Your task to perform on an android device: turn on the 24-hour format for clock Image 0: 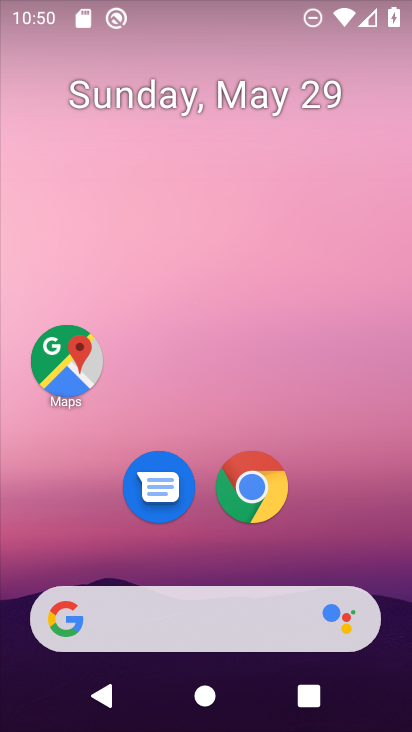
Step 0: drag from (204, 552) to (191, 92)
Your task to perform on an android device: turn on the 24-hour format for clock Image 1: 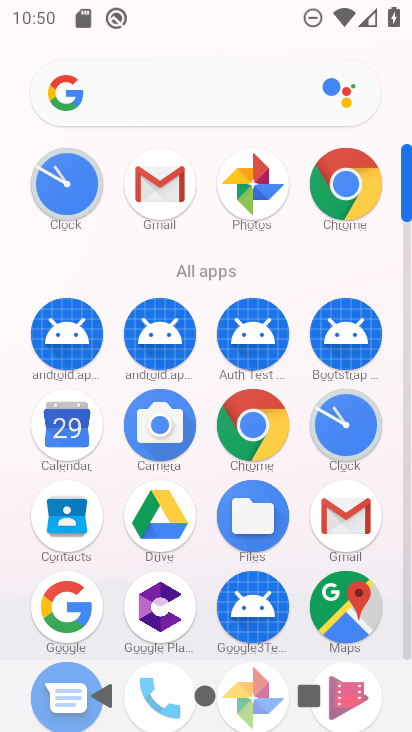
Step 1: click (342, 421)
Your task to perform on an android device: turn on the 24-hour format for clock Image 2: 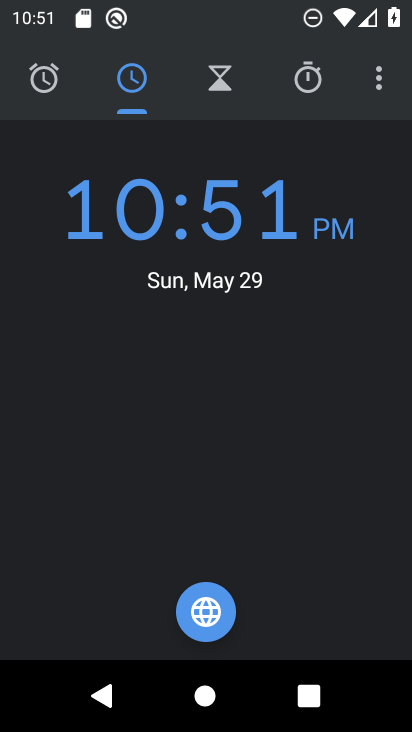
Step 2: click (382, 77)
Your task to perform on an android device: turn on the 24-hour format for clock Image 3: 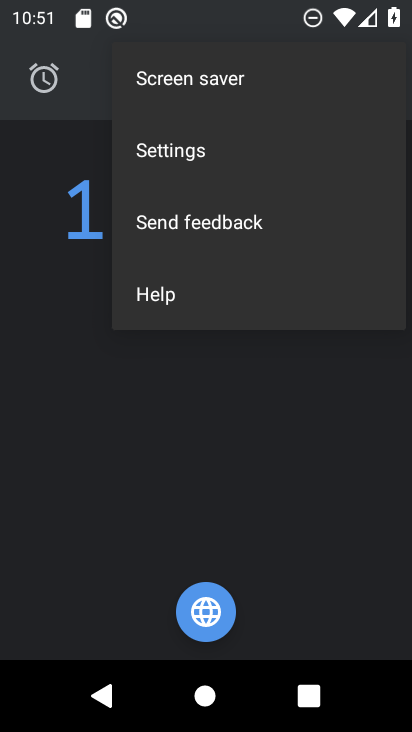
Step 3: click (229, 148)
Your task to perform on an android device: turn on the 24-hour format for clock Image 4: 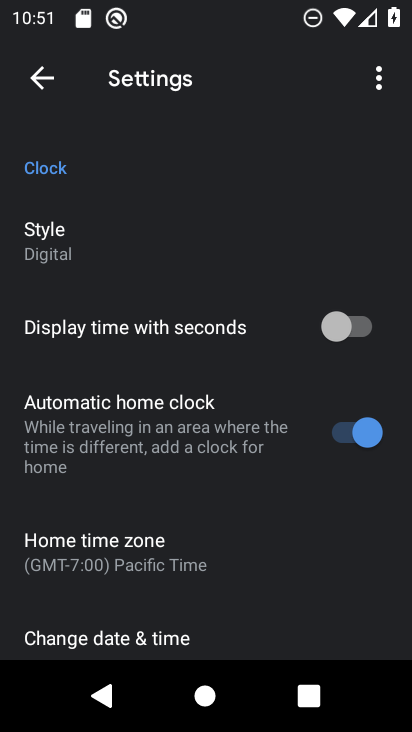
Step 4: click (203, 632)
Your task to perform on an android device: turn on the 24-hour format for clock Image 5: 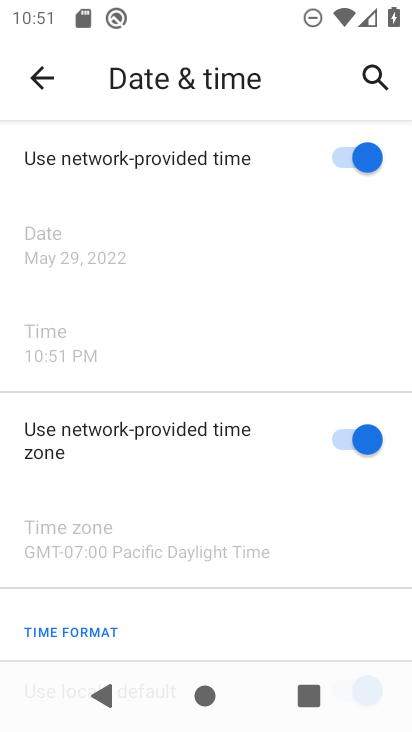
Step 5: drag from (195, 611) to (221, 122)
Your task to perform on an android device: turn on the 24-hour format for clock Image 6: 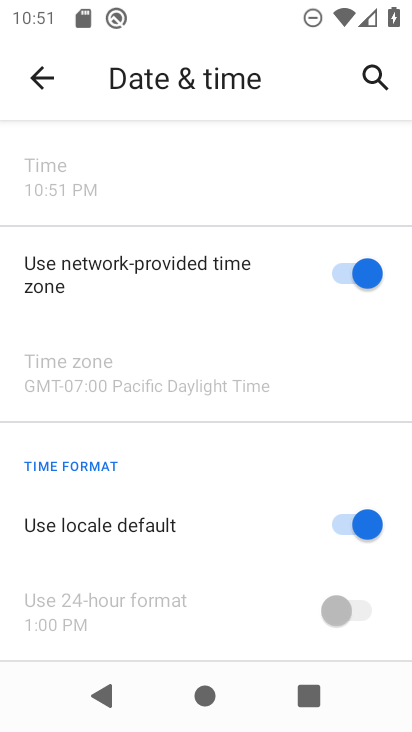
Step 6: click (360, 526)
Your task to perform on an android device: turn on the 24-hour format for clock Image 7: 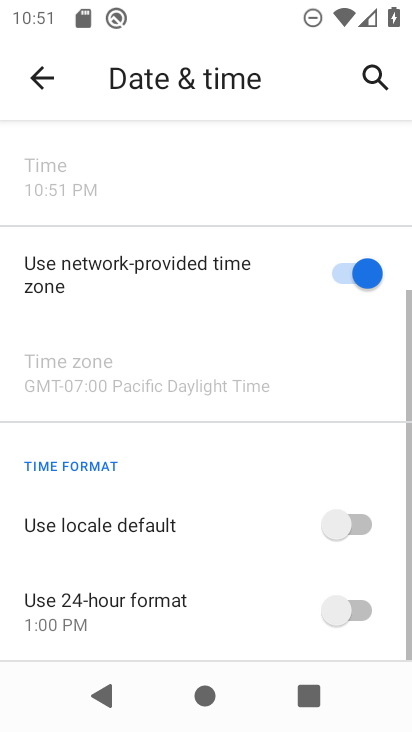
Step 7: click (347, 604)
Your task to perform on an android device: turn on the 24-hour format for clock Image 8: 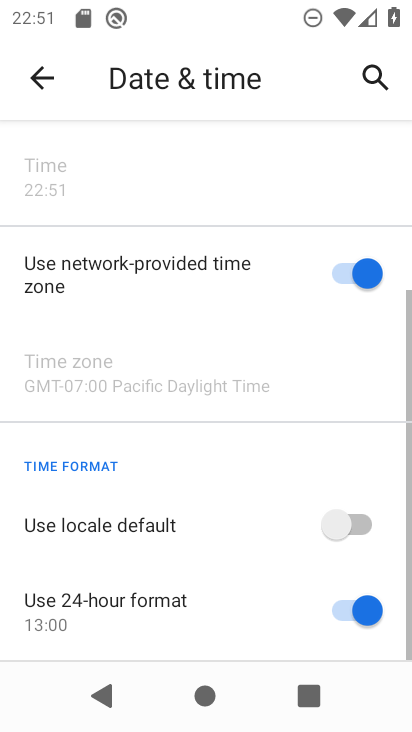
Step 8: task complete